Your task to perform on an android device: change timer sound Image 0: 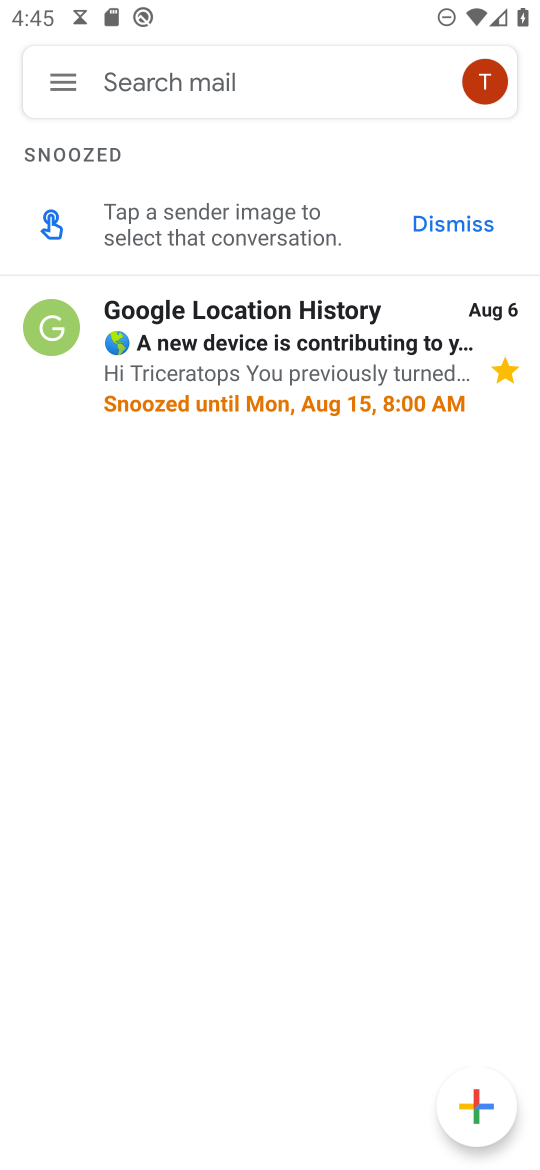
Step 0: press home button
Your task to perform on an android device: change timer sound Image 1: 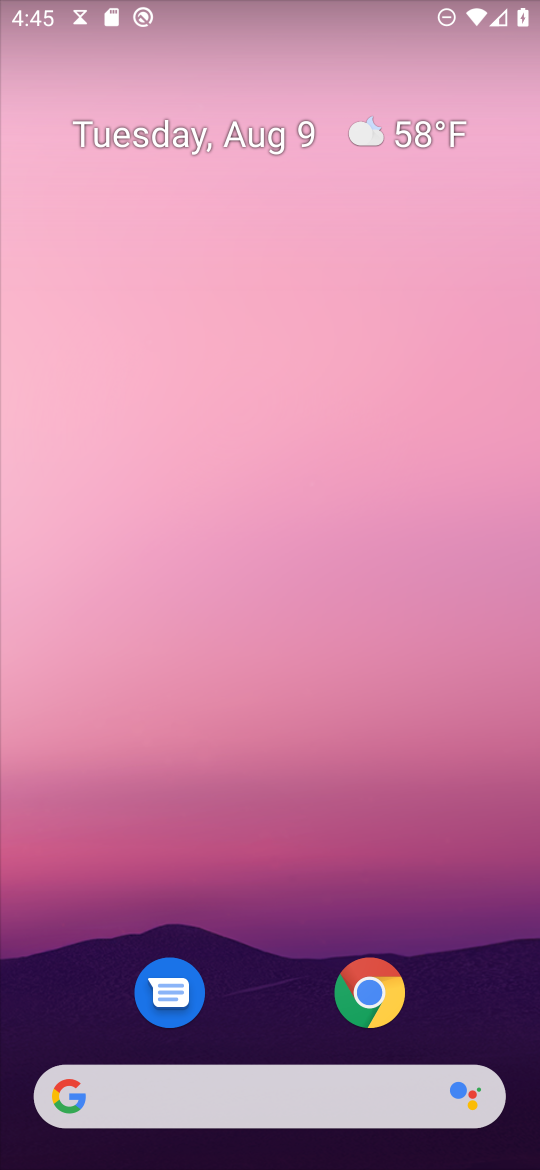
Step 1: drag from (380, 1109) to (358, 539)
Your task to perform on an android device: change timer sound Image 2: 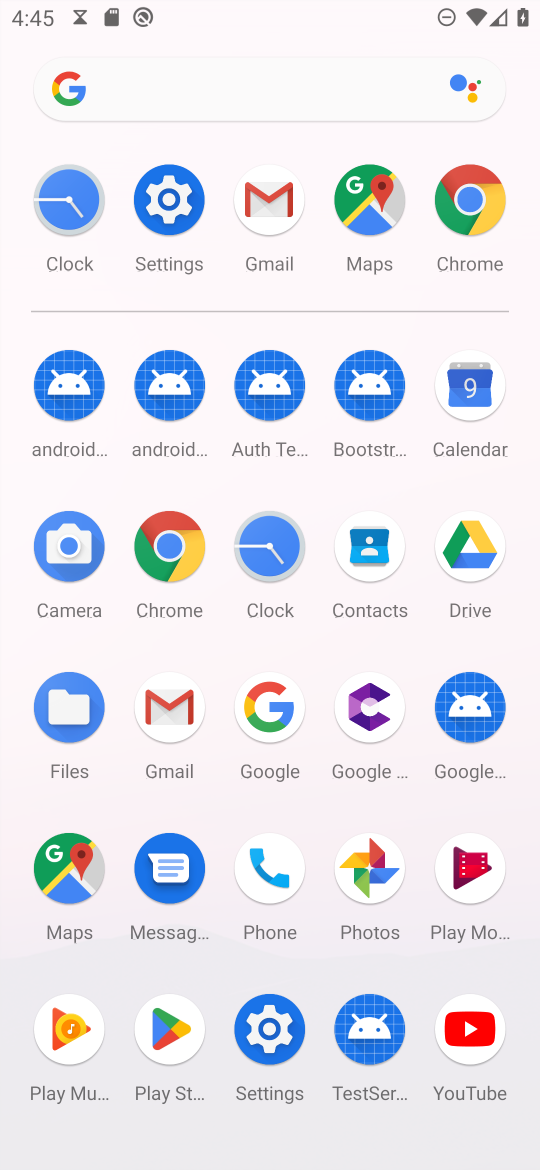
Step 2: click (259, 533)
Your task to perform on an android device: change timer sound Image 3: 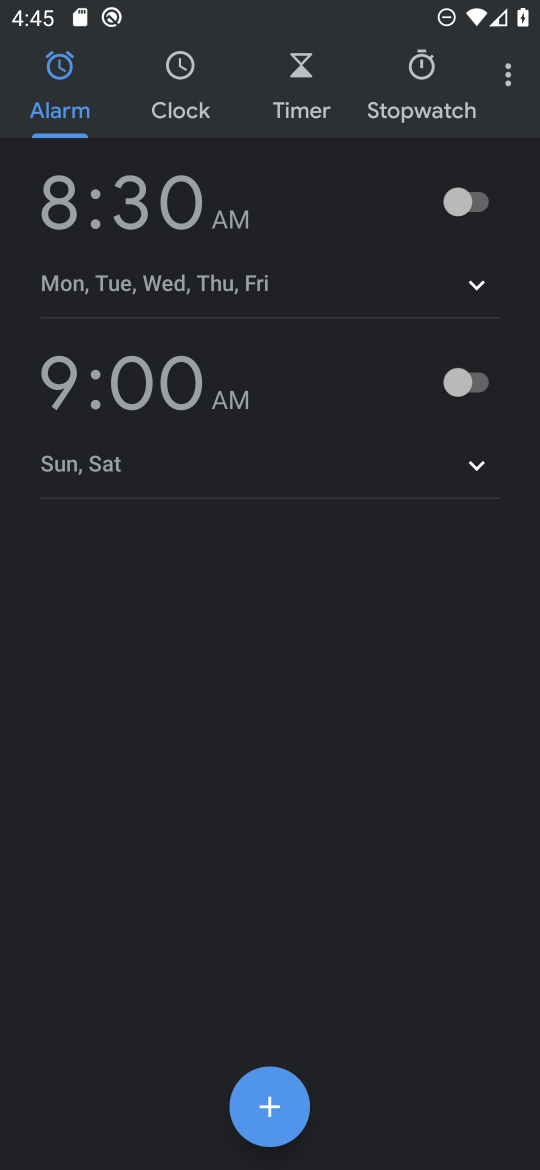
Step 3: click (498, 66)
Your task to perform on an android device: change timer sound Image 4: 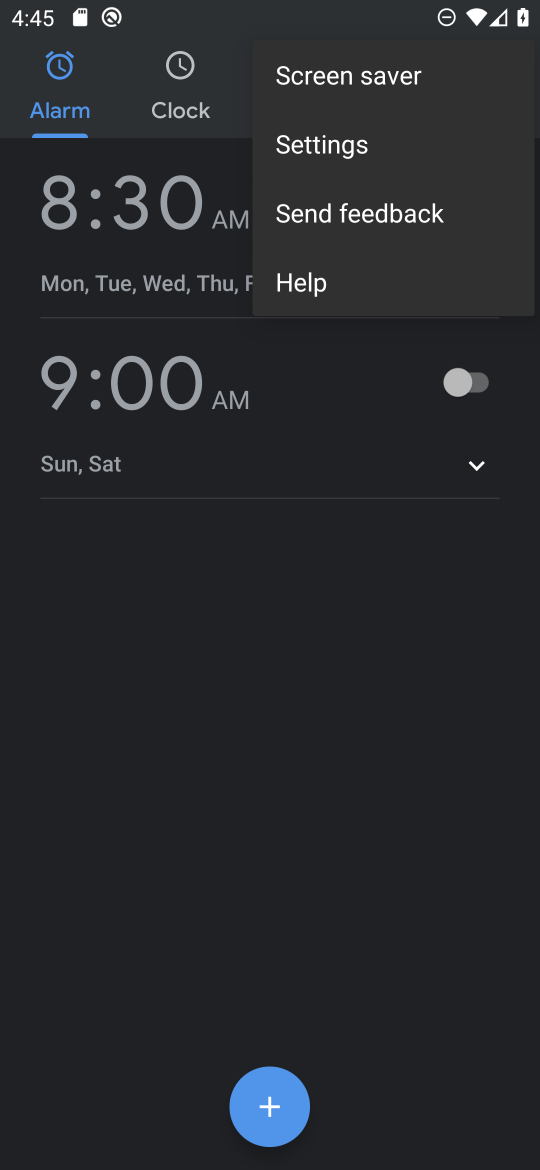
Step 4: click (307, 147)
Your task to perform on an android device: change timer sound Image 5: 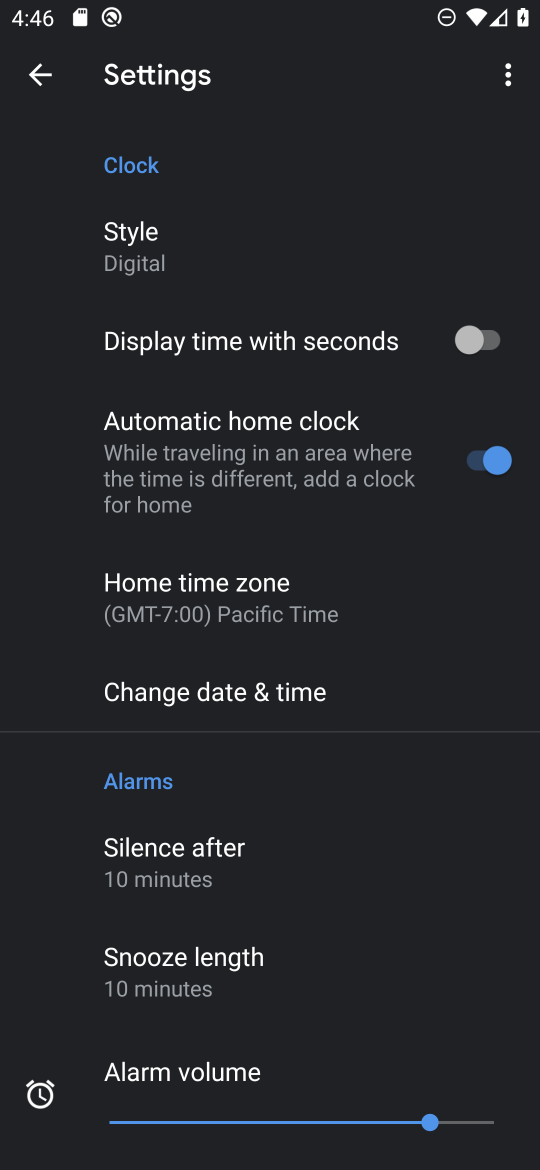
Step 5: click (370, 966)
Your task to perform on an android device: change timer sound Image 6: 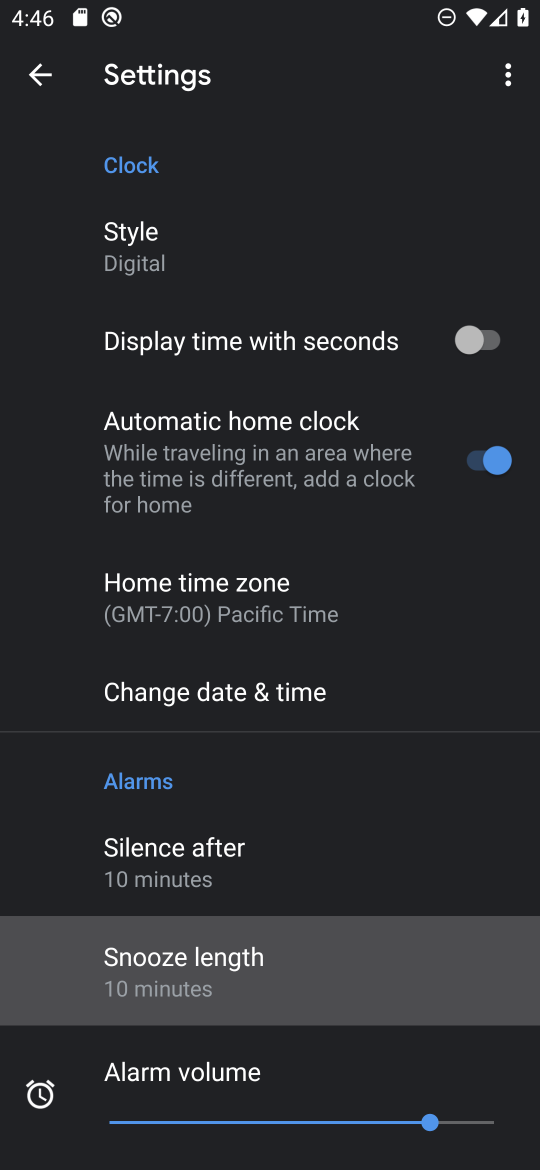
Step 6: drag from (370, 961) to (417, 524)
Your task to perform on an android device: change timer sound Image 7: 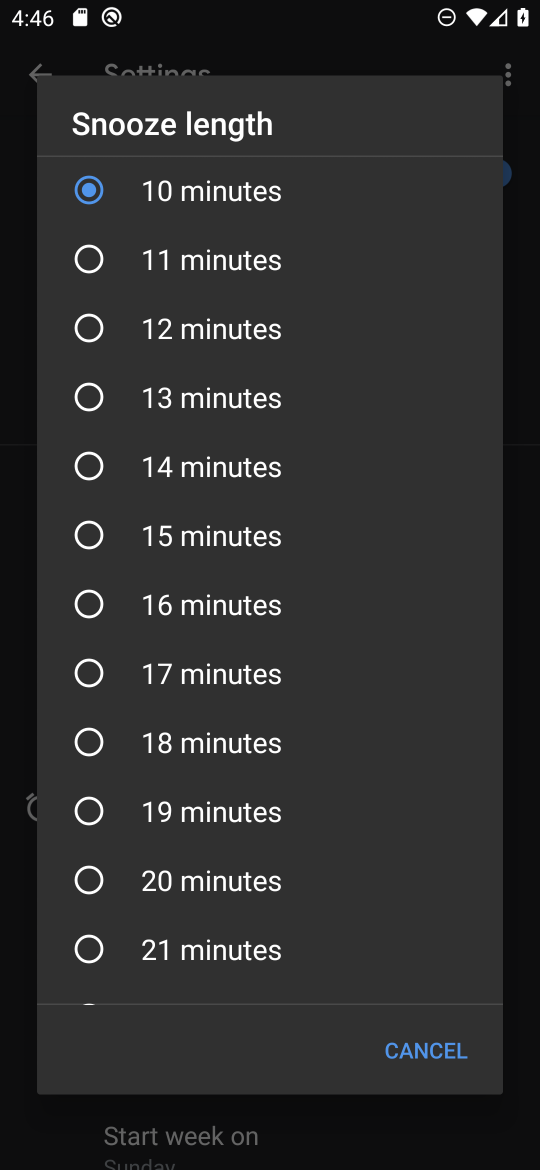
Step 7: click (439, 1049)
Your task to perform on an android device: change timer sound Image 8: 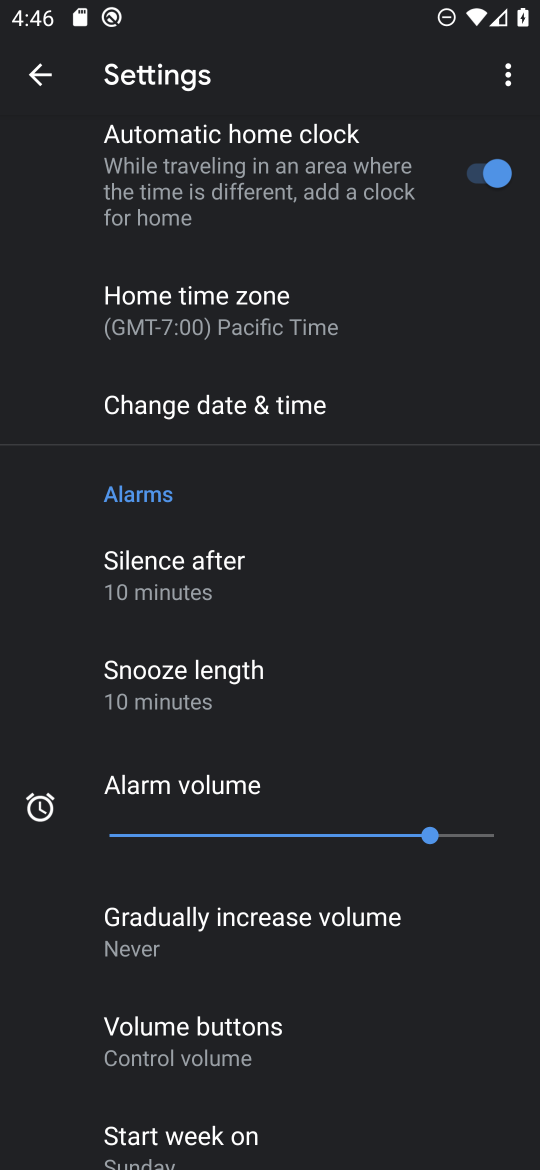
Step 8: drag from (418, 707) to (418, 52)
Your task to perform on an android device: change timer sound Image 9: 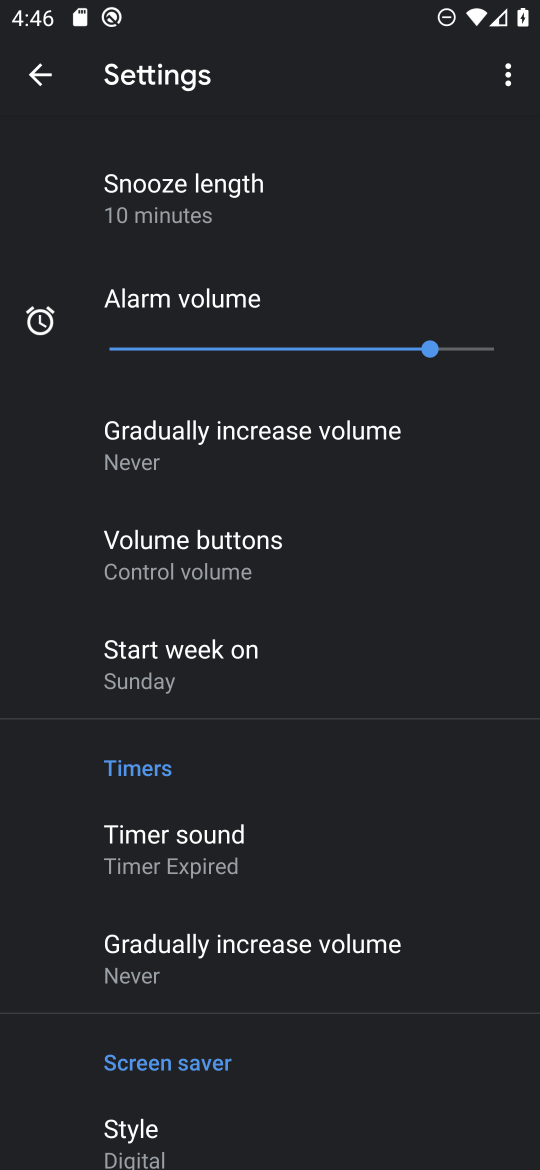
Step 9: click (138, 831)
Your task to perform on an android device: change timer sound Image 10: 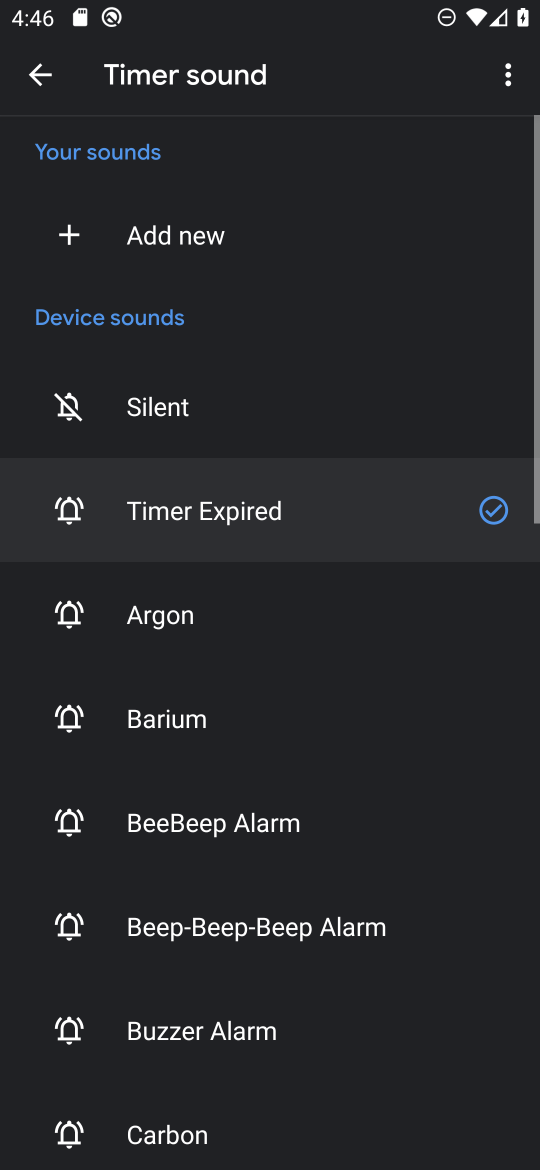
Step 10: click (250, 607)
Your task to perform on an android device: change timer sound Image 11: 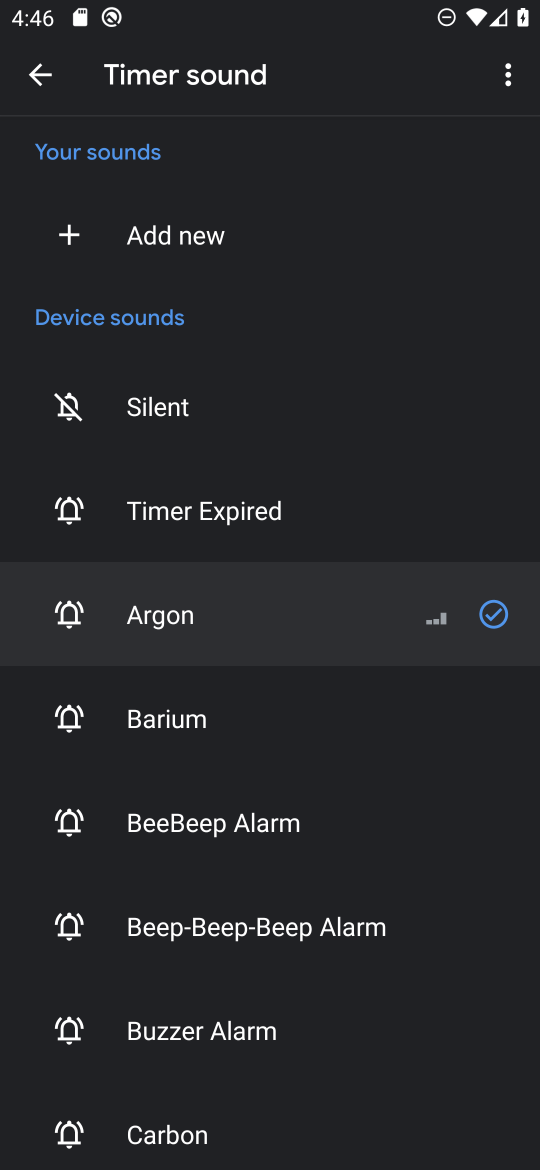
Step 11: task complete